Your task to perform on an android device: open chrome and create a bookmark for the current page Image 0: 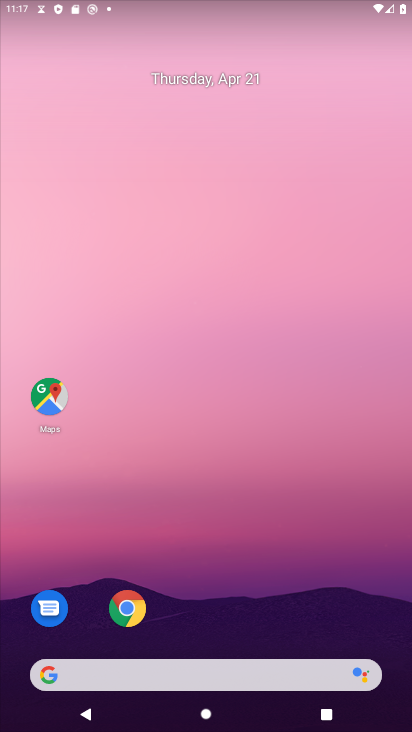
Step 0: click (130, 603)
Your task to perform on an android device: open chrome and create a bookmark for the current page Image 1: 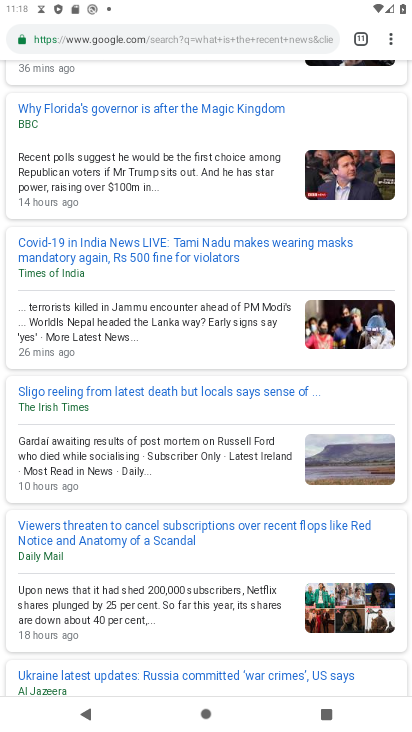
Step 1: click (362, 36)
Your task to perform on an android device: open chrome and create a bookmark for the current page Image 2: 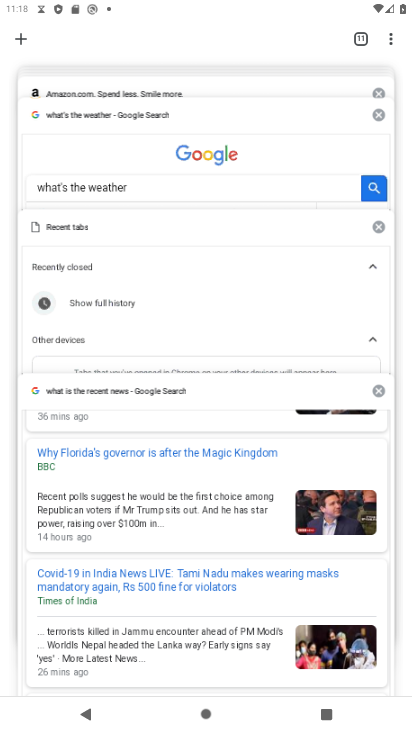
Step 2: click (179, 600)
Your task to perform on an android device: open chrome and create a bookmark for the current page Image 3: 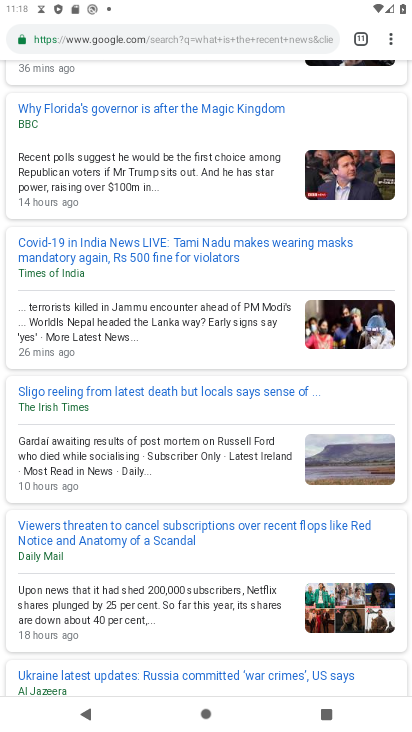
Step 3: click (390, 43)
Your task to perform on an android device: open chrome and create a bookmark for the current page Image 4: 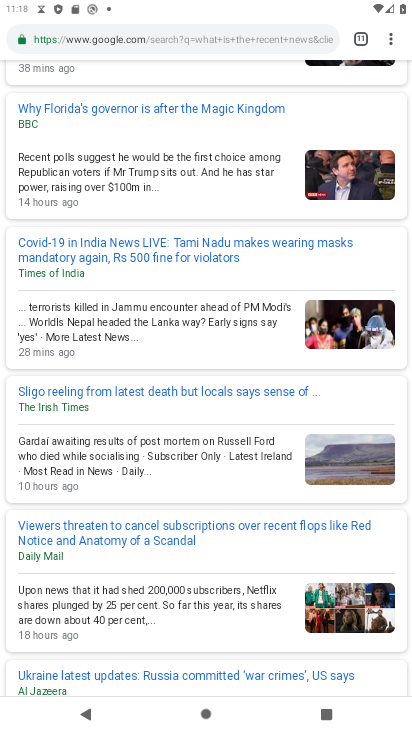
Step 4: drag from (388, 42) to (274, 41)
Your task to perform on an android device: open chrome and create a bookmark for the current page Image 5: 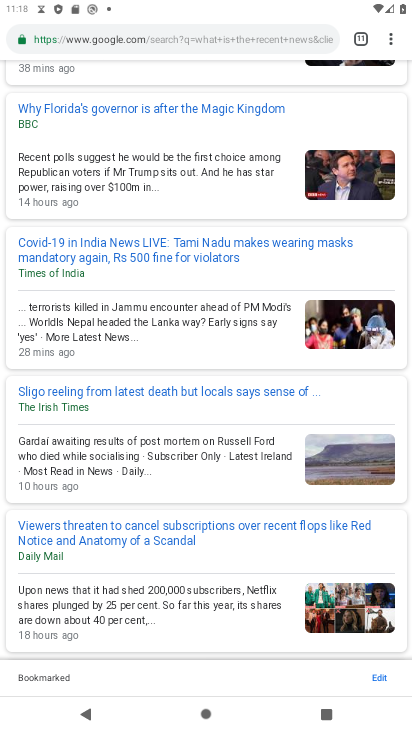
Step 5: drag from (392, 37) to (274, 39)
Your task to perform on an android device: open chrome and create a bookmark for the current page Image 6: 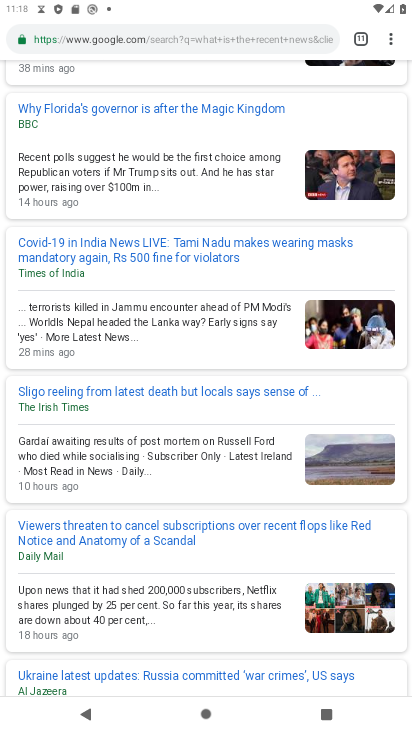
Step 6: click (274, 39)
Your task to perform on an android device: open chrome and create a bookmark for the current page Image 7: 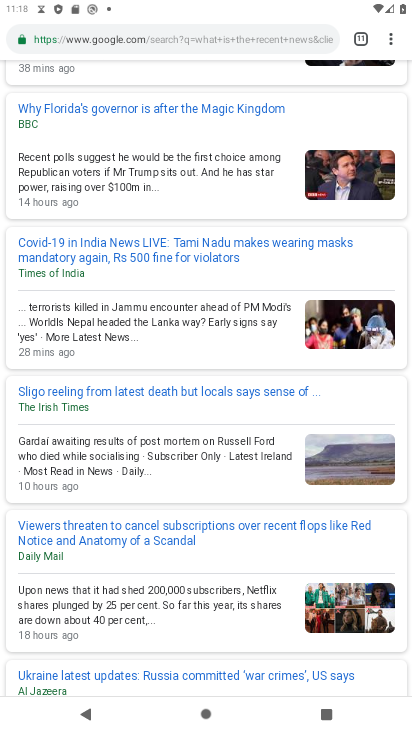
Step 7: click (390, 35)
Your task to perform on an android device: open chrome and create a bookmark for the current page Image 8: 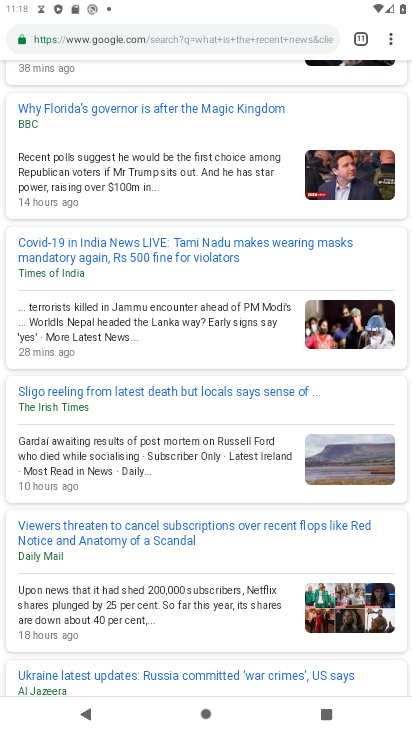
Step 8: task complete